Your task to perform on an android device: Open internet settings Image 0: 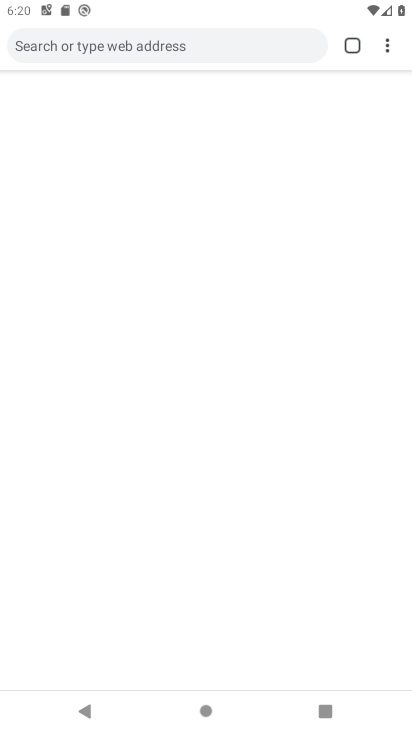
Step 0: drag from (275, 609) to (54, 638)
Your task to perform on an android device: Open internet settings Image 1: 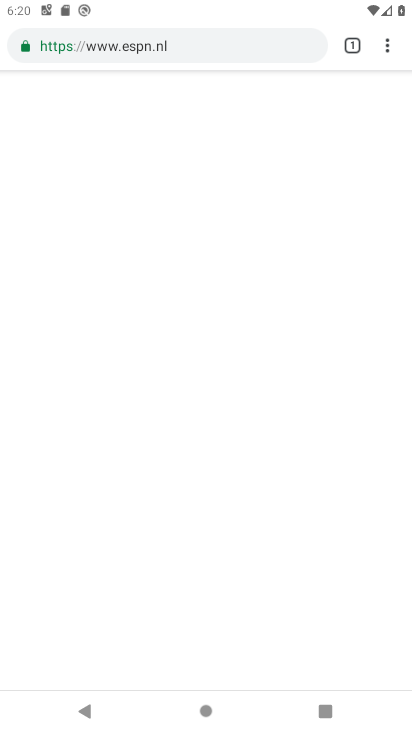
Step 1: press home button
Your task to perform on an android device: Open internet settings Image 2: 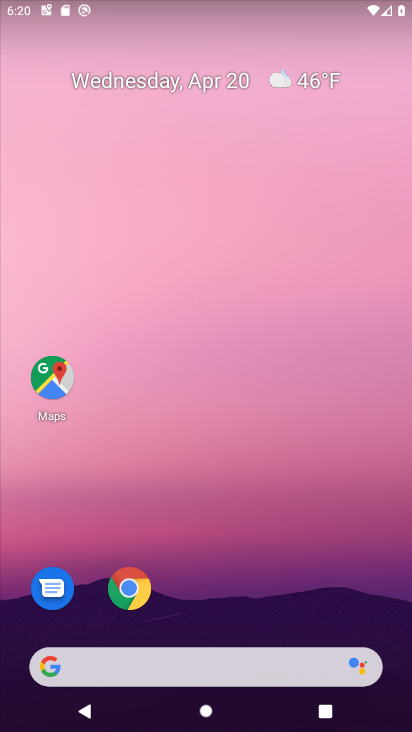
Step 2: drag from (275, 529) to (283, 1)
Your task to perform on an android device: Open internet settings Image 3: 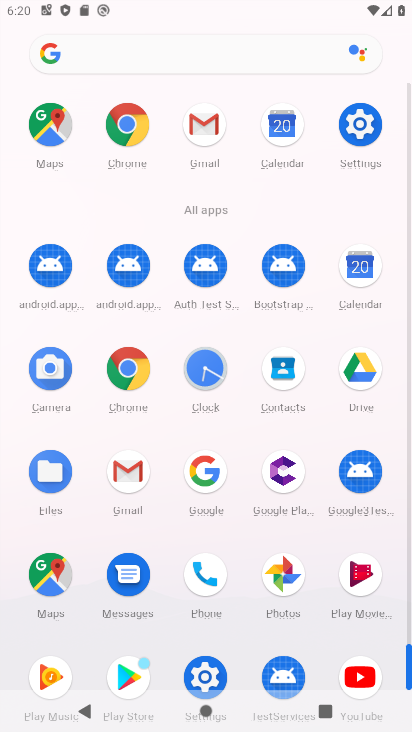
Step 3: click (211, 683)
Your task to perform on an android device: Open internet settings Image 4: 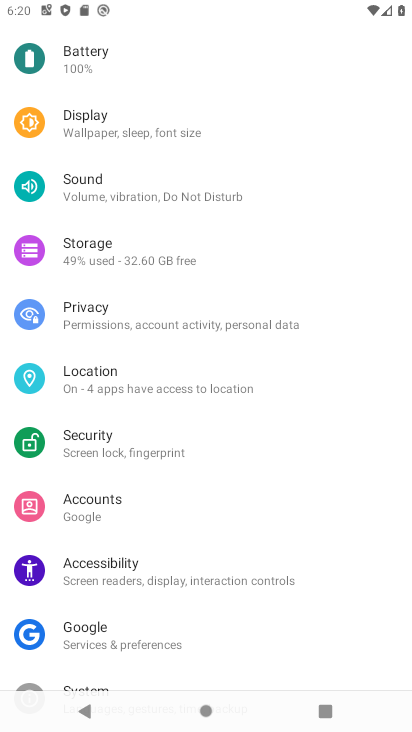
Step 4: drag from (227, 345) to (249, 650)
Your task to perform on an android device: Open internet settings Image 5: 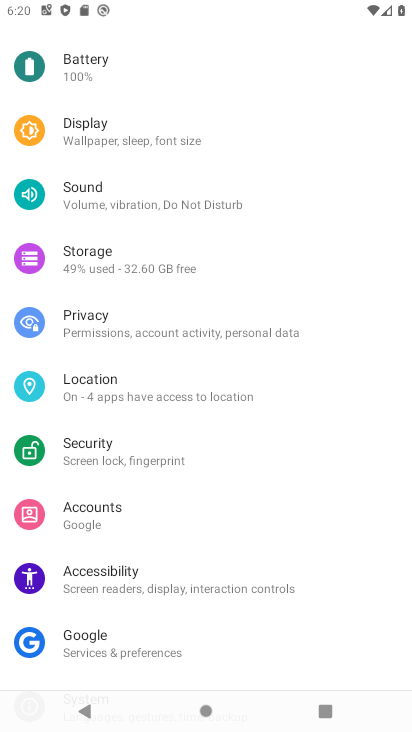
Step 5: drag from (164, 126) to (162, 679)
Your task to perform on an android device: Open internet settings Image 6: 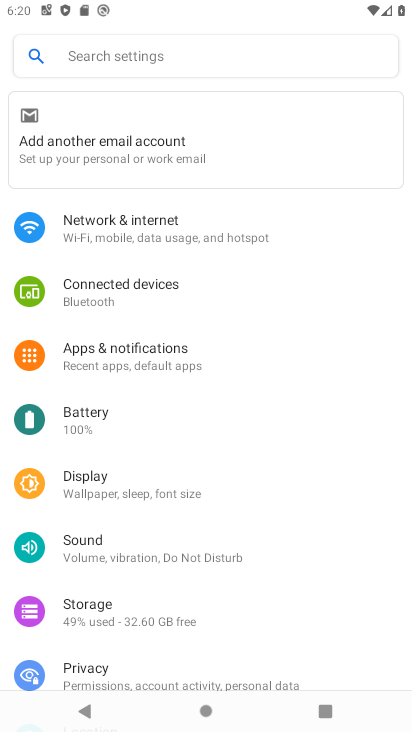
Step 6: click (185, 230)
Your task to perform on an android device: Open internet settings Image 7: 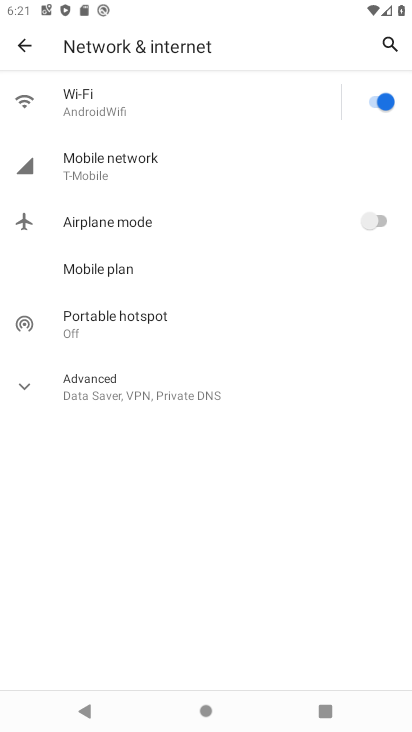
Step 7: task complete